Your task to perform on an android device: toggle airplane mode Image 0: 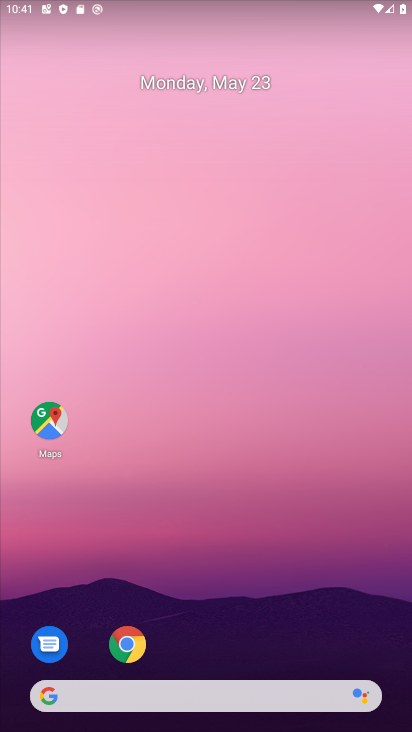
Step 0: drag from (184, 677) to (198, 1)
Your task to perform on an android device: toggle airplane mode Image 1: 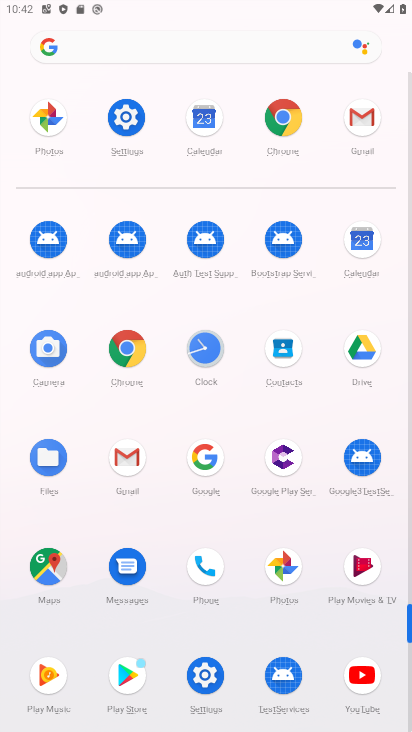
Step 1: click (127, 123)
Your task to perform on an android device: toggle airplane mode Image 2: 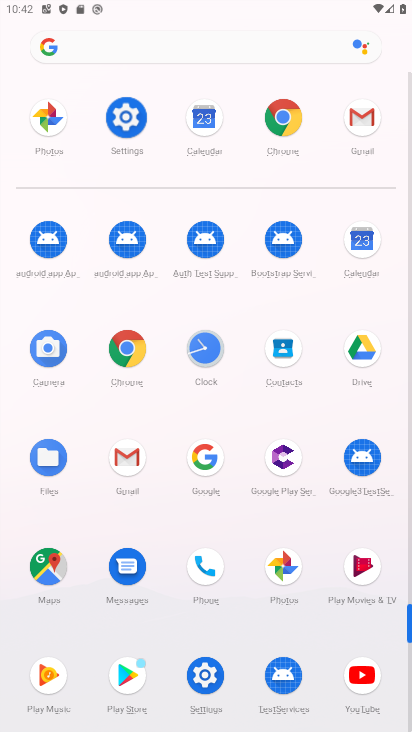
Step 2: click (128, 120)
Your task to perform on an android device: toggle airplane mode Image 3: 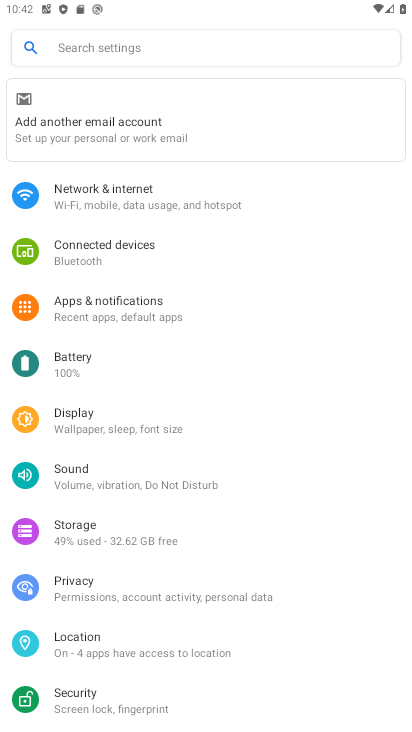
Step 3: click (103, 195)
Your task to perform on an android device: toggle airplane mode Image 4: 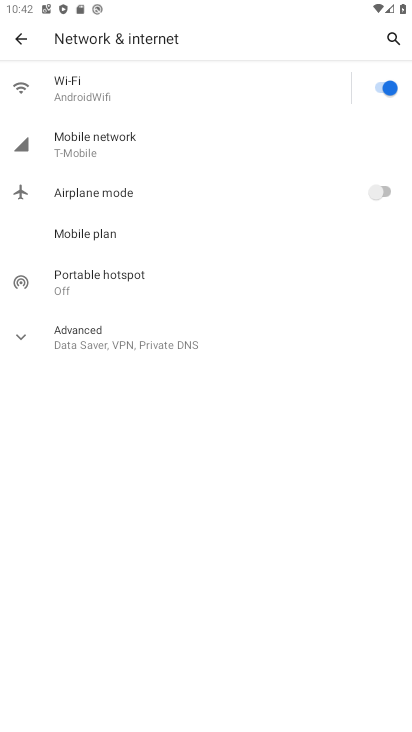
Step 4: click (377, 185)
Your task to perform on an android device: toggle airplane mode Image 5: 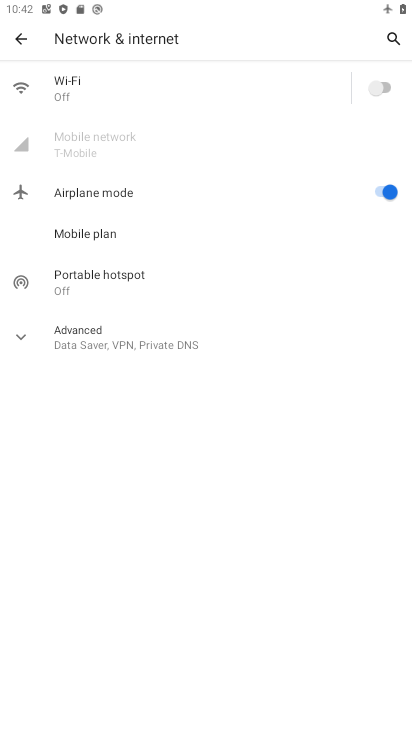
Step 5: task complete